Your task to perform on an android device: Clear the cart on target.com. Image 0: 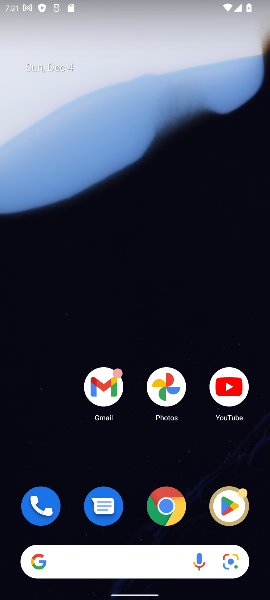
Step 0: click (164, 506)
Your task to perform on an android device: Clear the cart on target.com. Image 1: 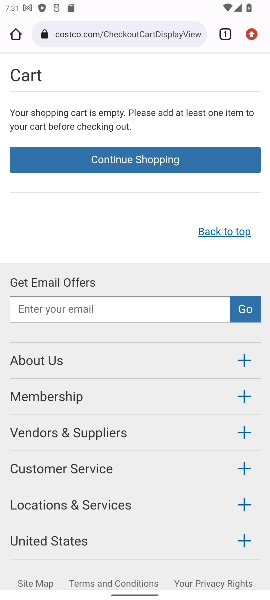
Step 1: click (121, 29)
Your task to perform on an android device: Clear the cart on target.com. Image 2: 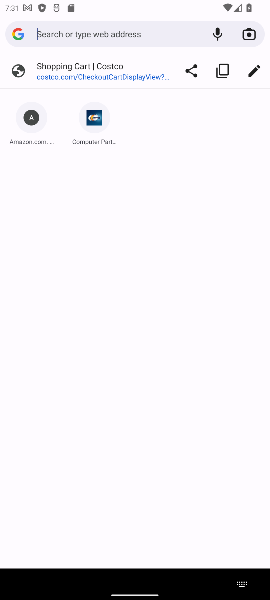
Step 2: type "target"
Your task to perform on an android device: Clear the cart on target.com. Image 3: 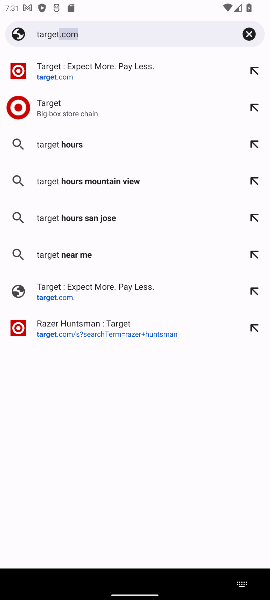
Step 3: click (88, 78)
Your task to perform on an android device: Clear the cart on target.com. Image 4: 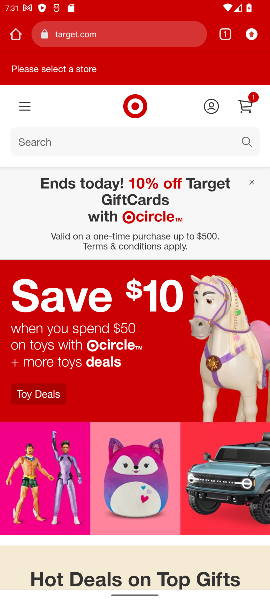
Step 4: click (250, 106)
Your task to perform on an android device: Clear the cart on target.com. Image 5: 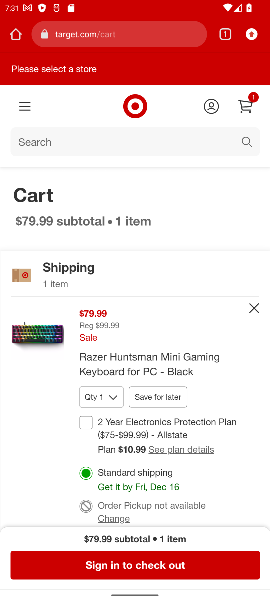
Step 5: click (254, 312)
Your task to perform on an android device: Clear the cart on target.com. Image 6: 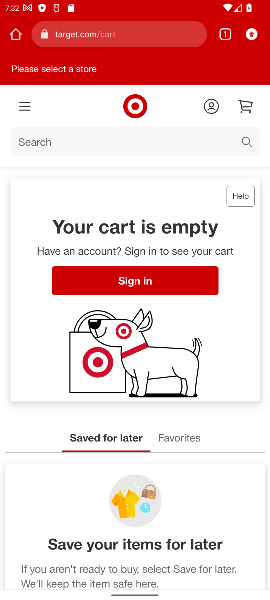
Step 6: task complete